Your task to perform on an android device: change notification settings in the gmail app Image 0: 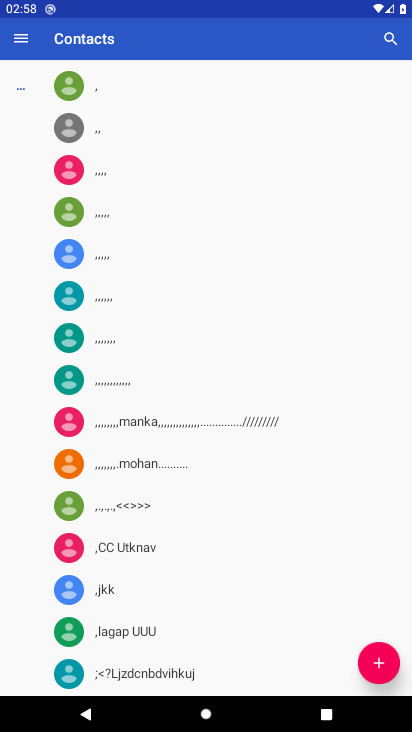
Step 0: press home button
Your task to perform on an android device: change notification settings in the gmail app Image 1: 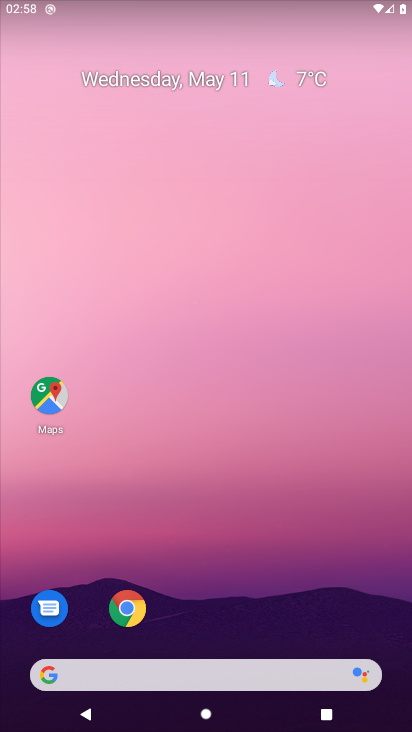
Step 1: drag from (201, 617) to (237, 220)
Your task to perform on an android device: change notification settings in the gmail app Image 2: 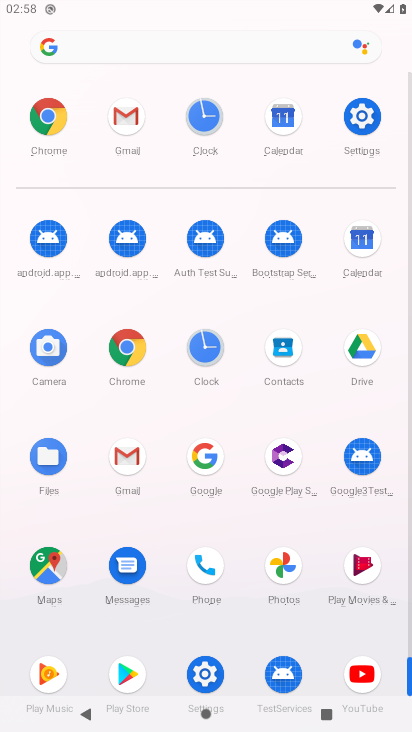
Step 2: click (120, 453)
Your task to perform on an android device: change notification settings in the gmail app Image 3: 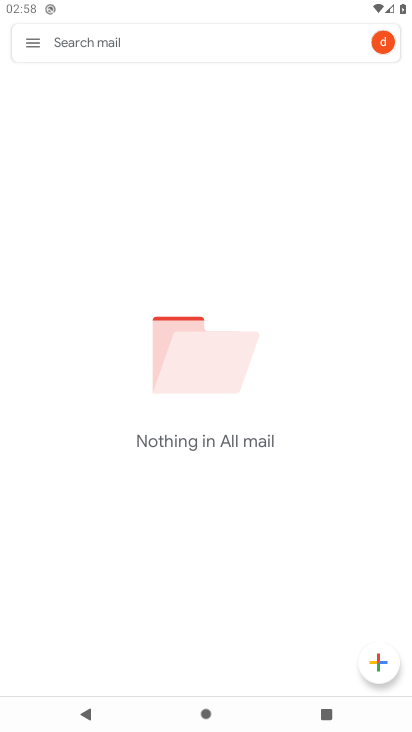
Step 3: click (21, 31)
Your task to perform on an android device: change notification settings in the gmail app Image 4: 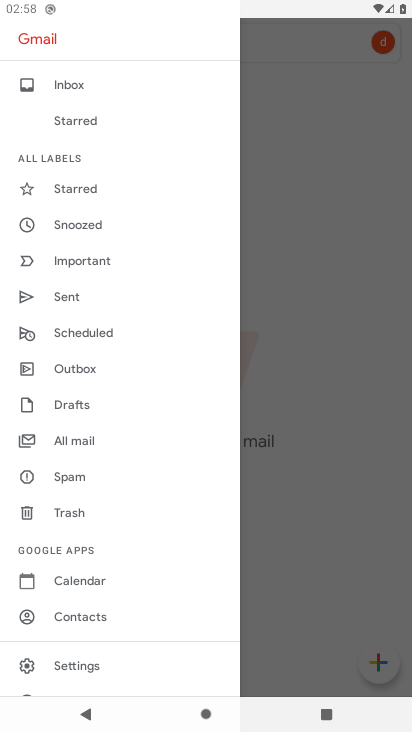
Step 4: drag from (118, 669) to (136, 477)
Your task to perform on an android device: change notification settings in the gmail app Image 5: 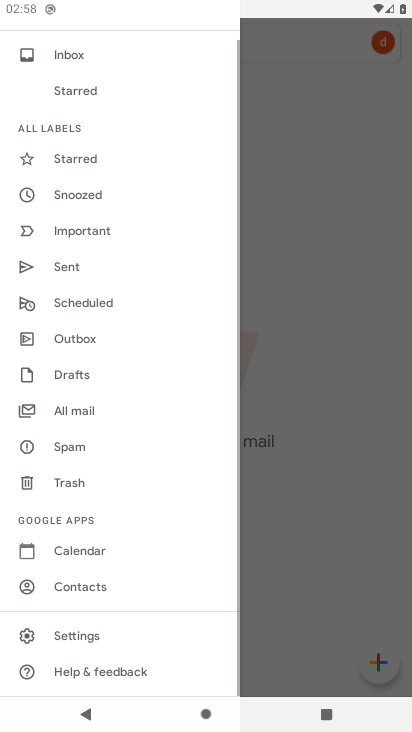
Step 5: click (95, 630)
Your task to perform on an android device: change notification settings in the gmail app Image 6: 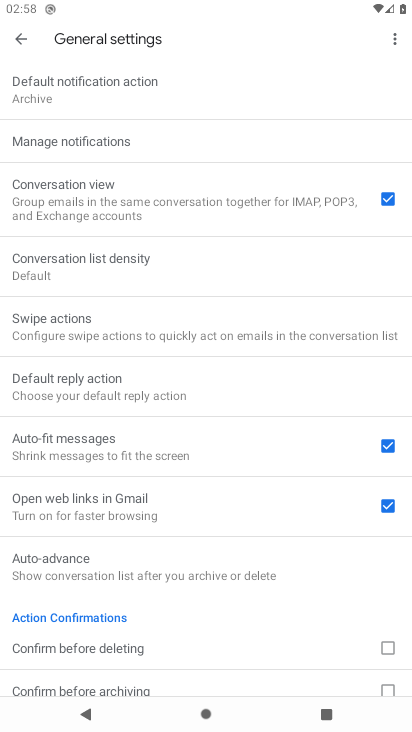
Step 6: click (141, 143)
Your task to perform on an android device: change notification settings in the gmail app Image 7: 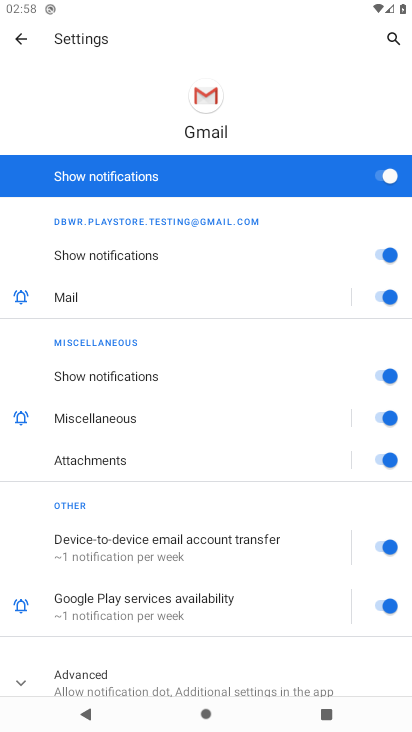
Step 7: click (152, 154)
Your task to perform on an android device: change notification settings in the gmail app Image 8: 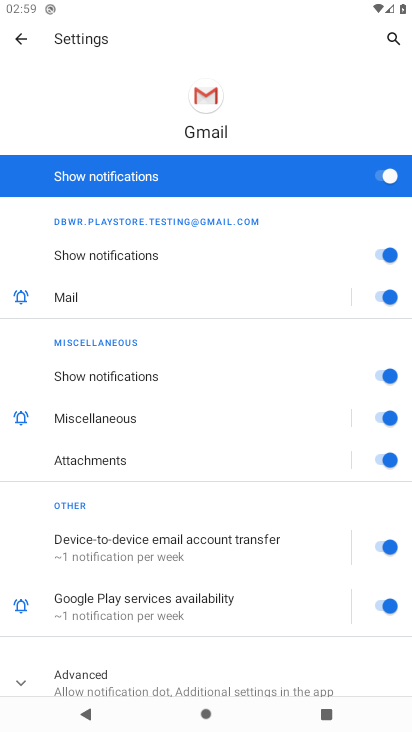
Step 8: click (381, 176)
Your task to perform on an android device: change notification settings in the gmail app Image 9: 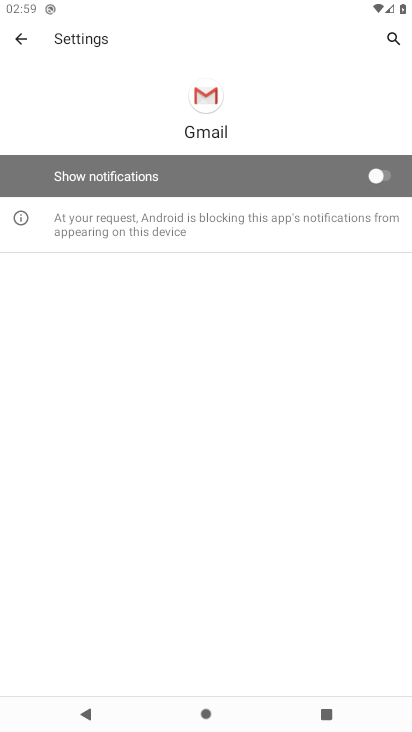
Step 9: task complete